Your task to perform on an android device: Show me recent news Image 0: 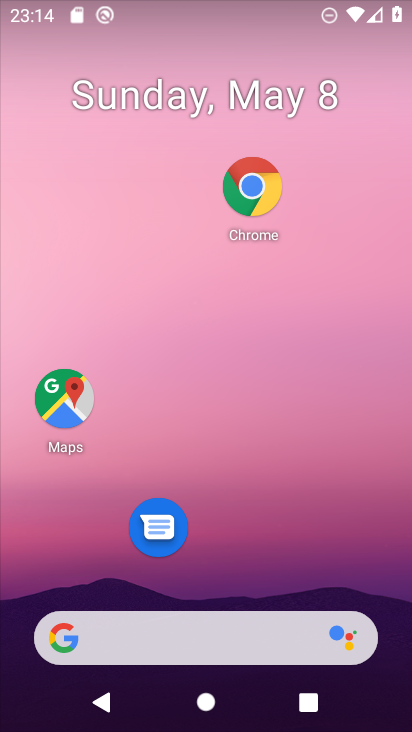
Step 0: drag from (291, 543) to (343, 226)
Your task to perform on an android device: Show me recent news Image 1: 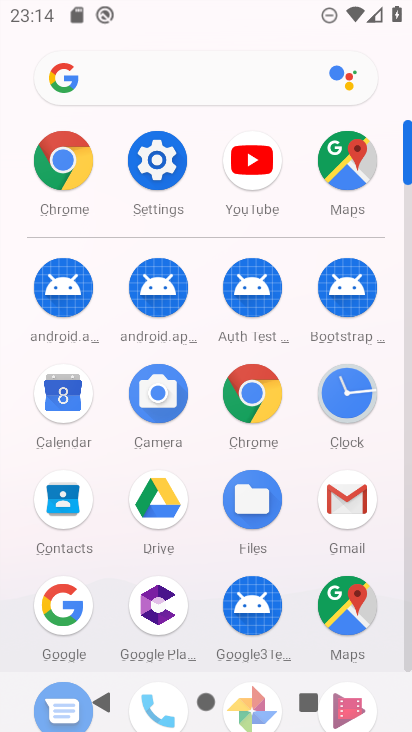
Step 1: click (60, 146)
Your task to perform on an android device: Show me recent news Image 2: 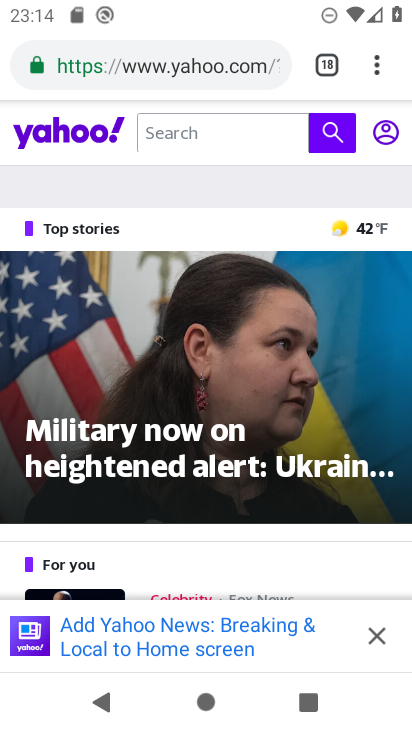
Step 2: click (363, 64)
Your task to perform on an android device: Show me recent news Image 3: 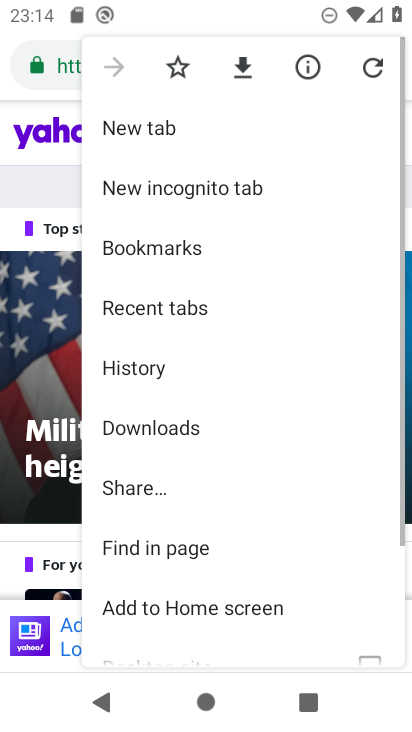
Step 3: click (128, 121)
Your task to perform on an android device: Show me recent news Image 4: 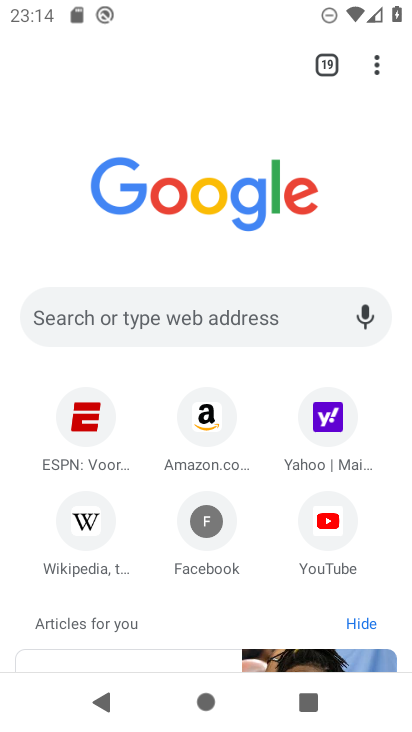
Step 4: click (125, 307)
Your task to perform on an android device: Show me recent news Image 5: 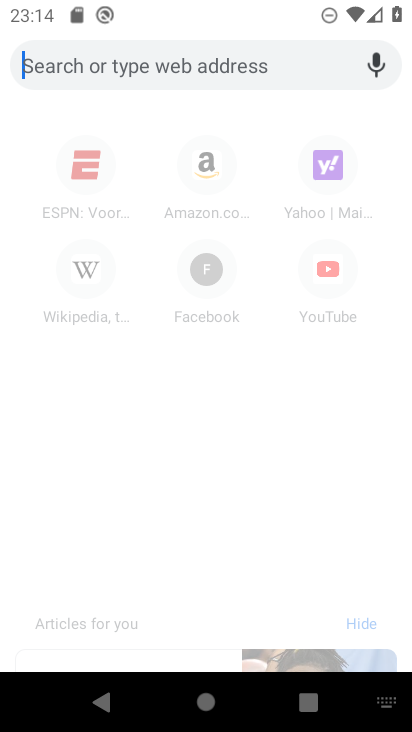
Step 5: click (288, 47)
Your task to perform on an android device: Show me recent news Image 6: 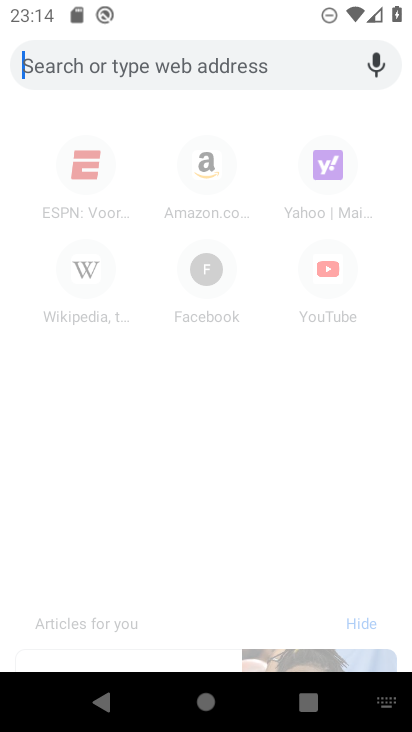
Step 6: type "Show me recent news"
Your task to perform on an android device: Show me recent news Image 7: 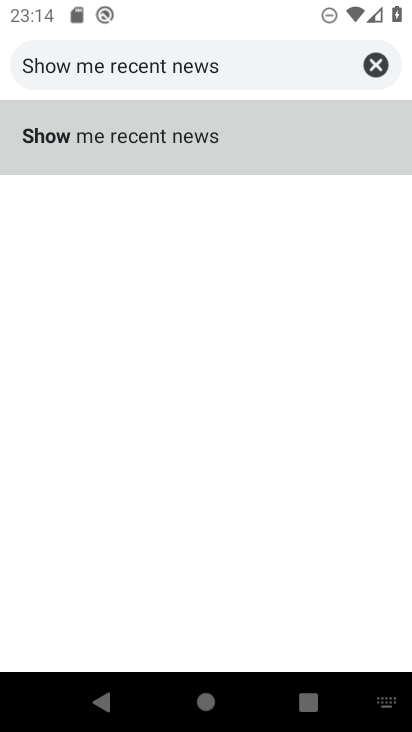
Step 7: click (295, 155)
Your task to perform on an android device: Show me recent news Image 8: 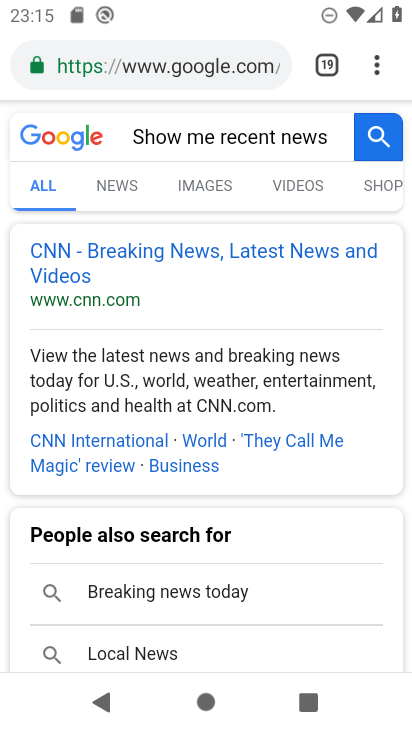
Step 8: task complete